Your task to perform on an android device: Add "acer predator" to the cart on amazon Image 0: 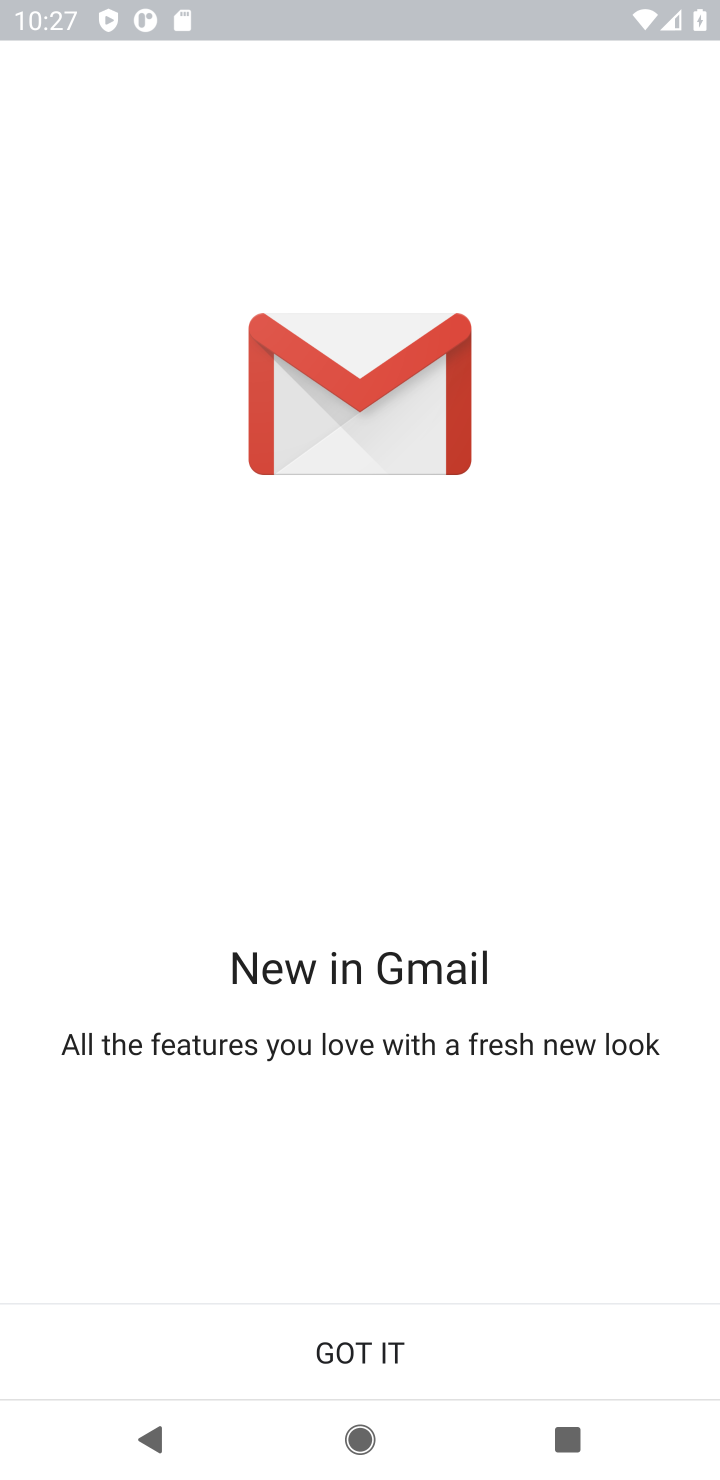
Step 0: press home button
Your task to perform on an android device: Add "acer predator" to the cart on amazon Image 1: 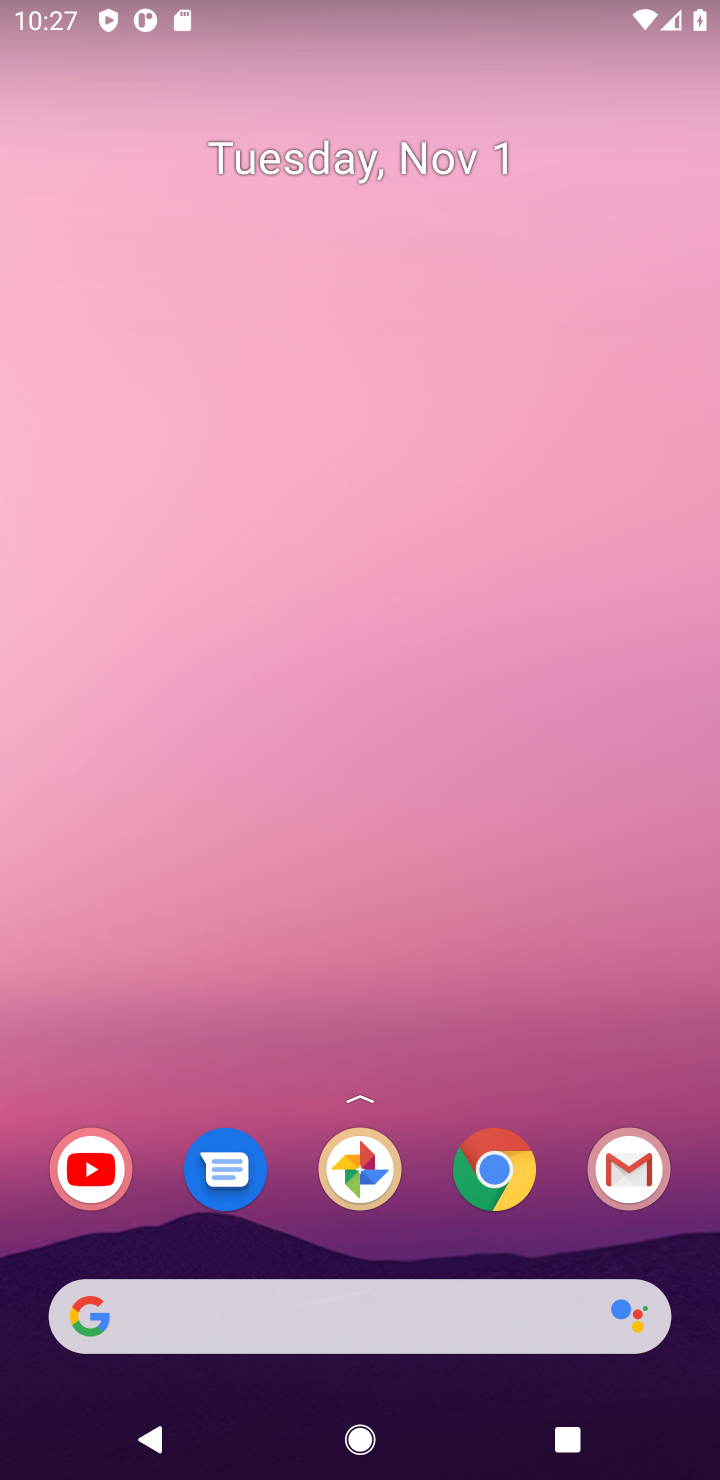
Step 1: click (480, 1164)
Your task to perform on an android device: Add "acer predator" to the cart on amazon Image 2: 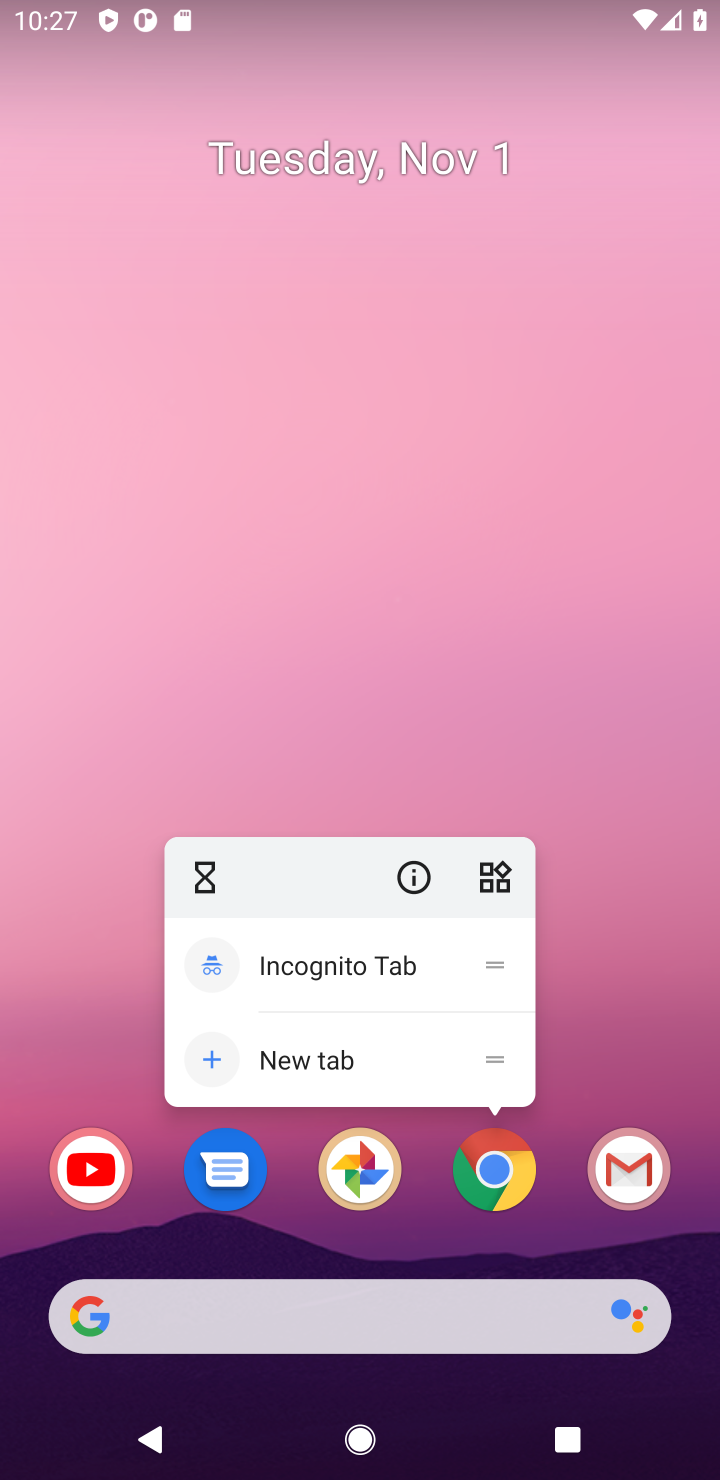
Step 2: click (477, 1166)
Your task to perform on an android device: Add "acer predator" to the cart on amazon Image 3: 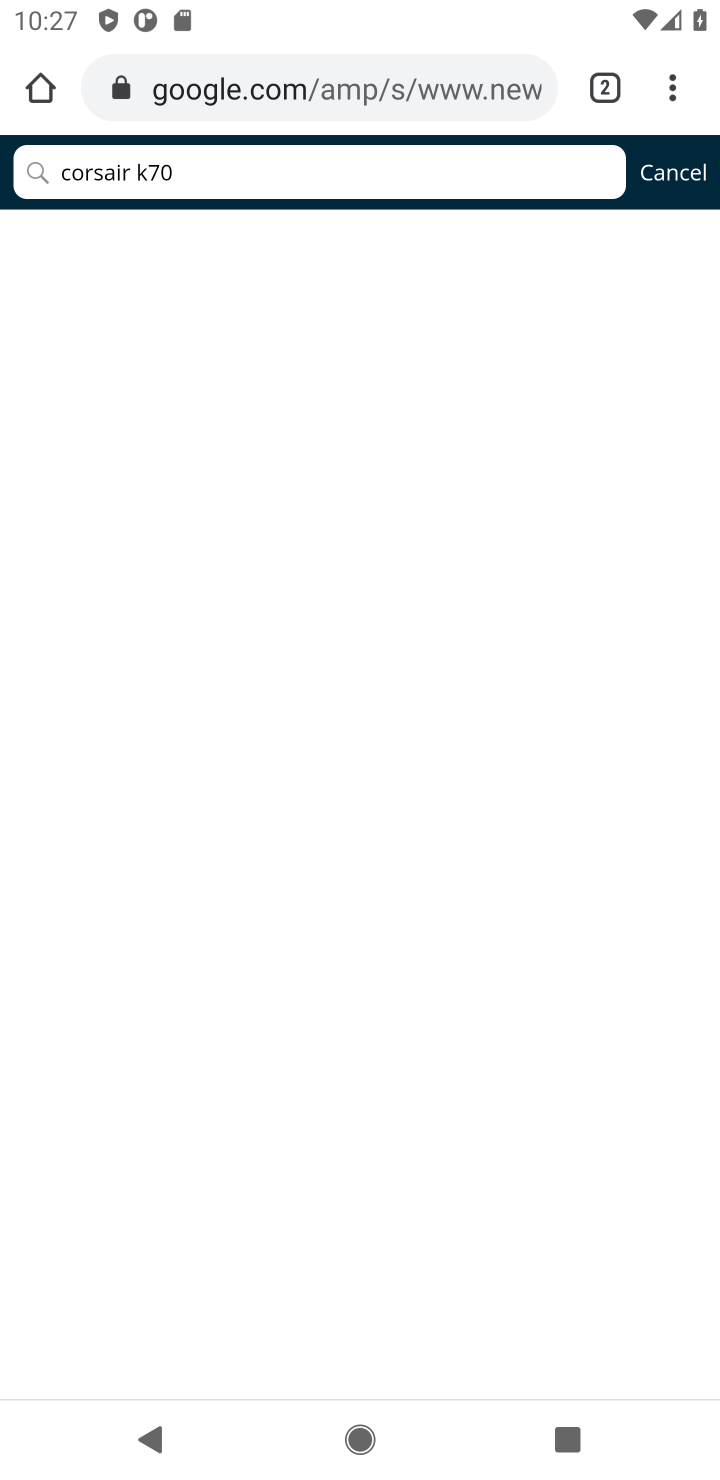
Step 3: click (461, 78)
Your task to perform on an android device: Add "acer predator" to the cart on amazon Image 4: 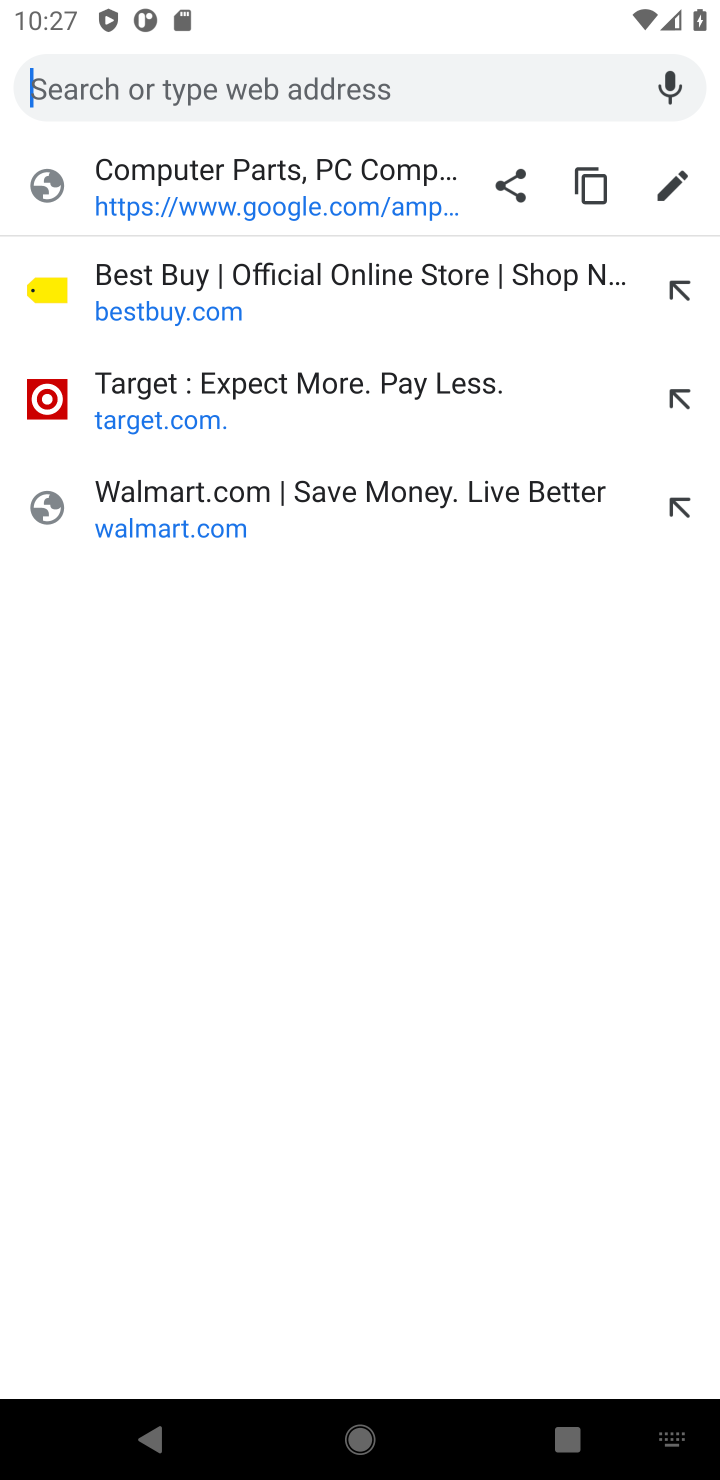
Step 4: press enter
Your task to perform on an android device: Add "acer predator" to the cart on amazon Image 5: 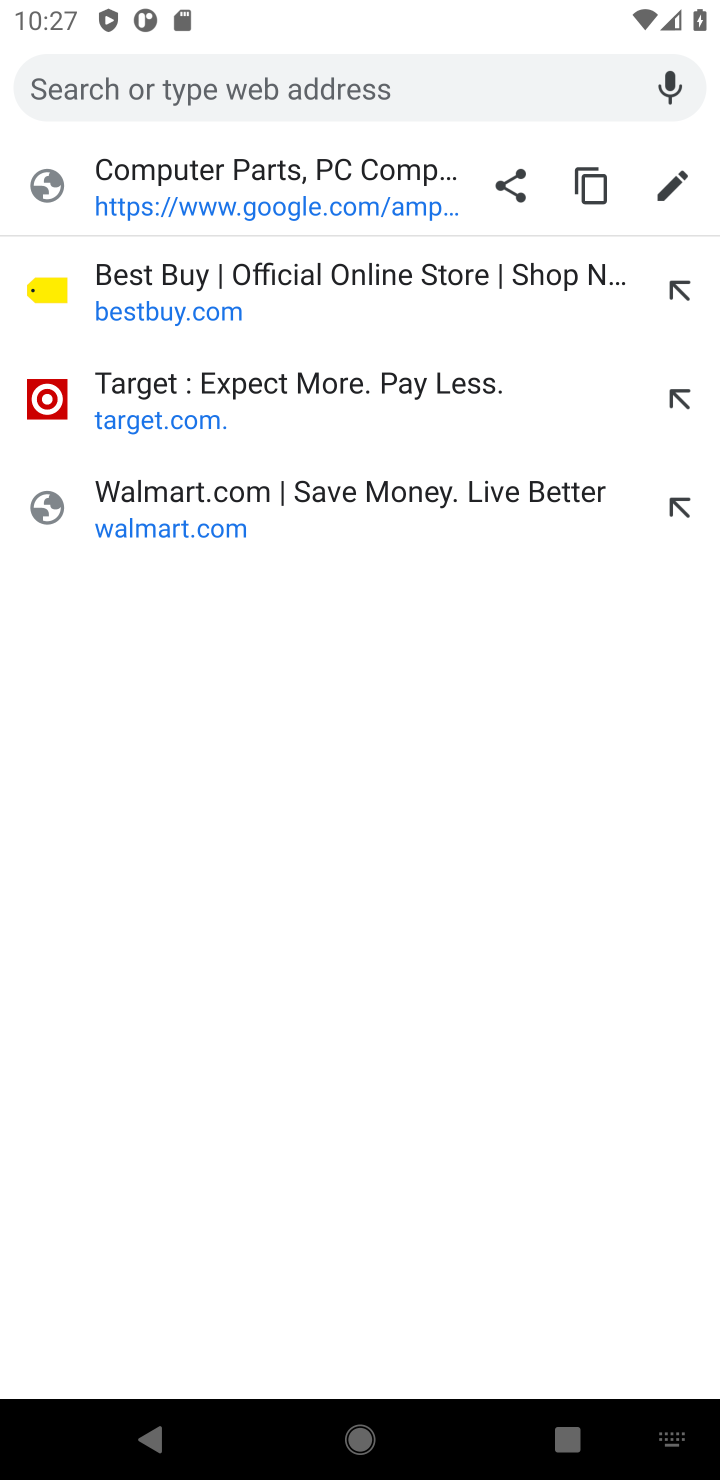
Step 5: type "amazon"
Your task to perform on an android device: Add "acer predator" to the cart on amazon Image 6: 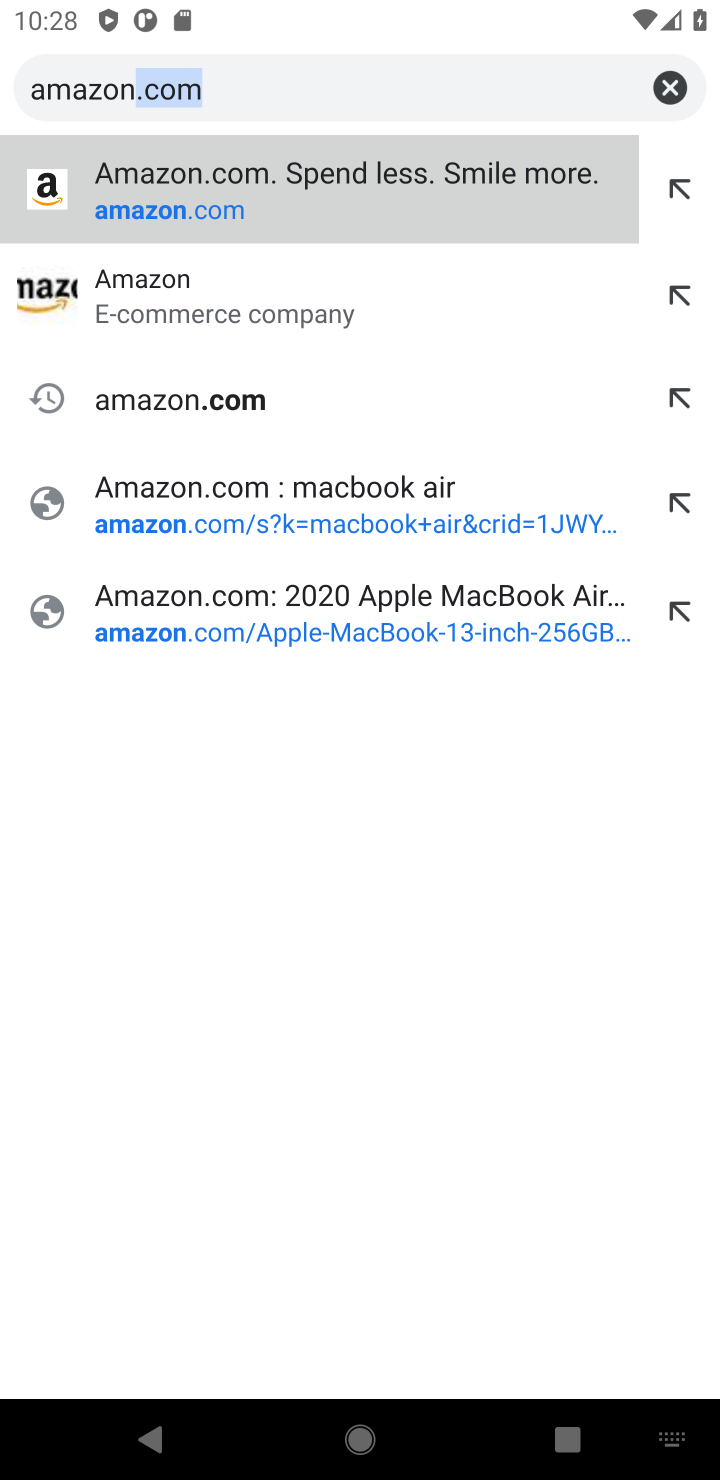
Step 6: click (387, 85)
Your task to perform on an android device: Add "acer predator" to the cart on amazon Image 7: 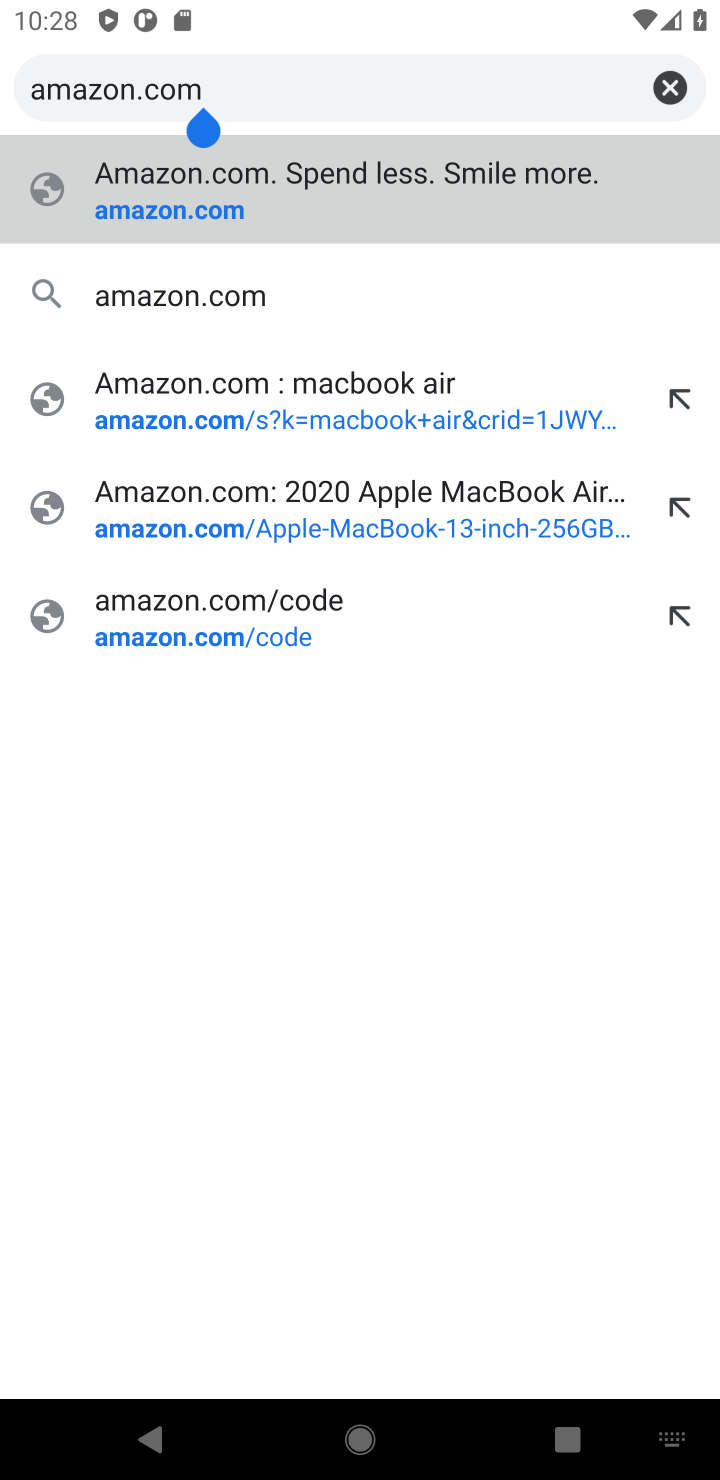
Step 7: click (235, 298)
Your task to perform on an android device: Add "acer predator" to the cart on amazon Image 8: 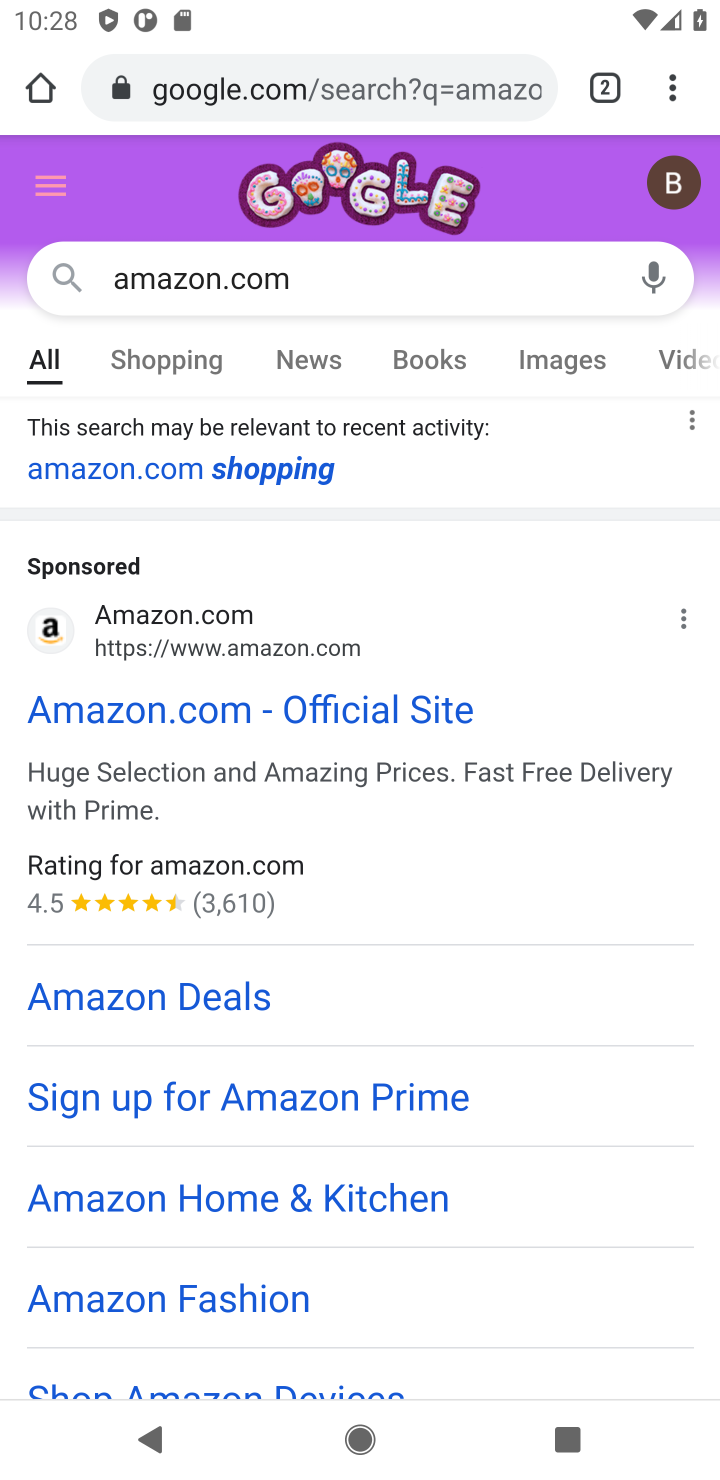
Step 8: drag from (370, 895) to (441, 499)
Your task to perform on an android device: Add "acer predator" to the cart on amazon Image 9: 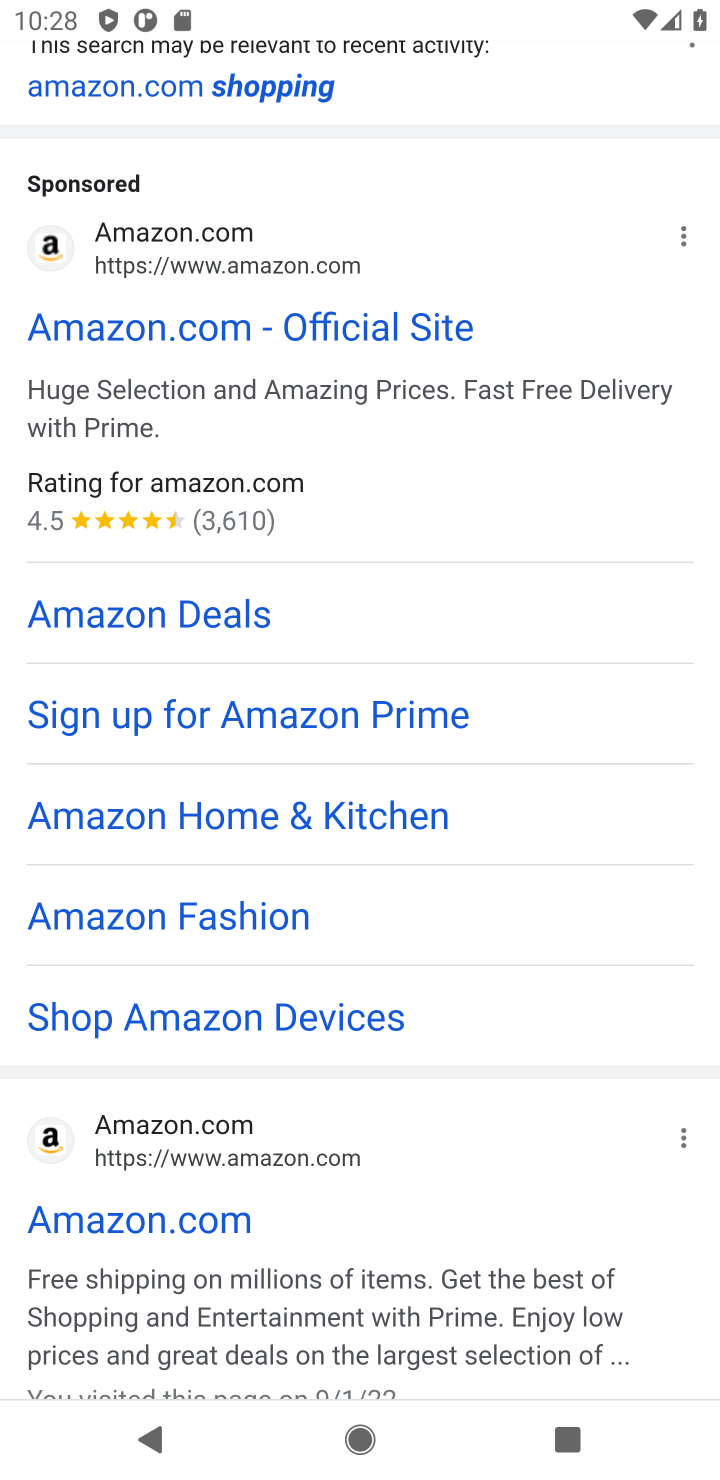
Step 9: click (266, 1119)
Your task to perform on an android device: Add "acer predator" to the cart on amazon Image 10: 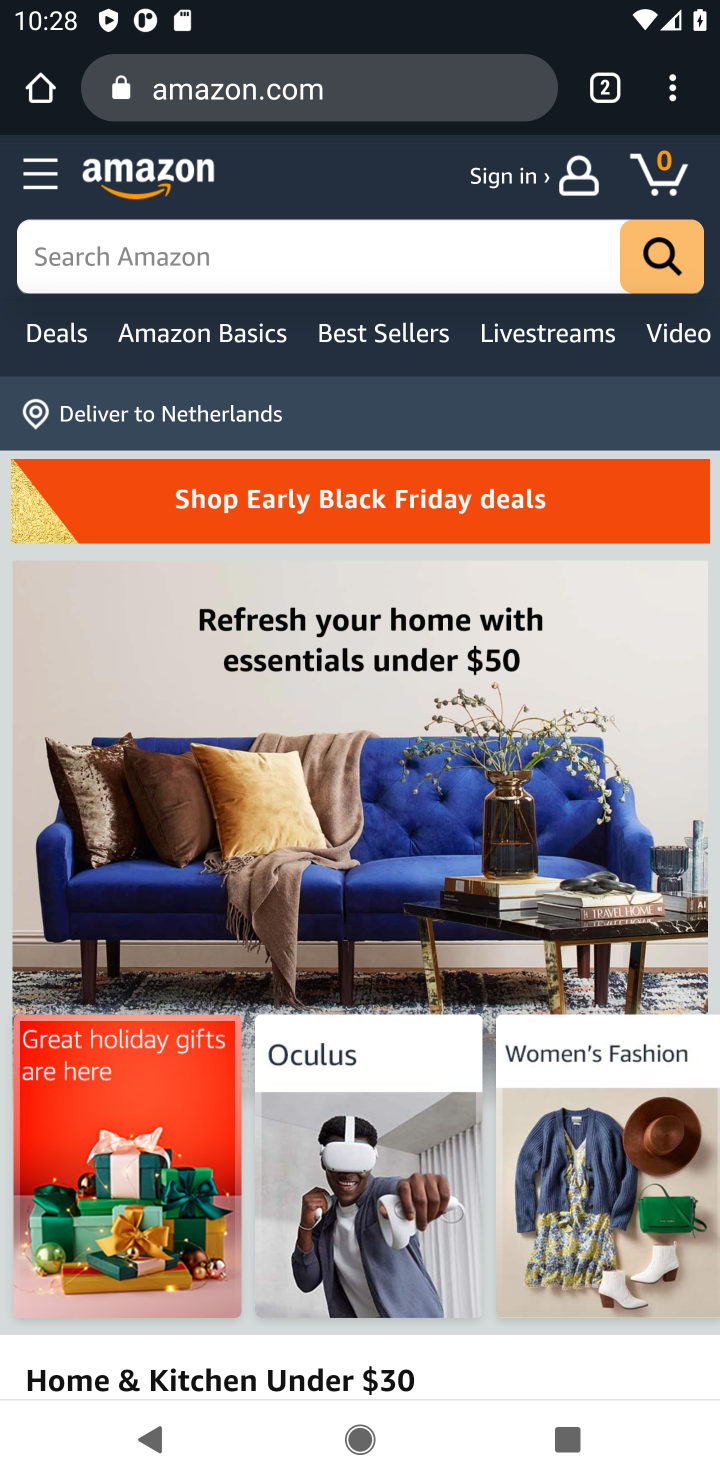
Step 10: click (349, 253)
Your task to perform on an android device: Add "acer predator" to the cart on amazon Image 11: 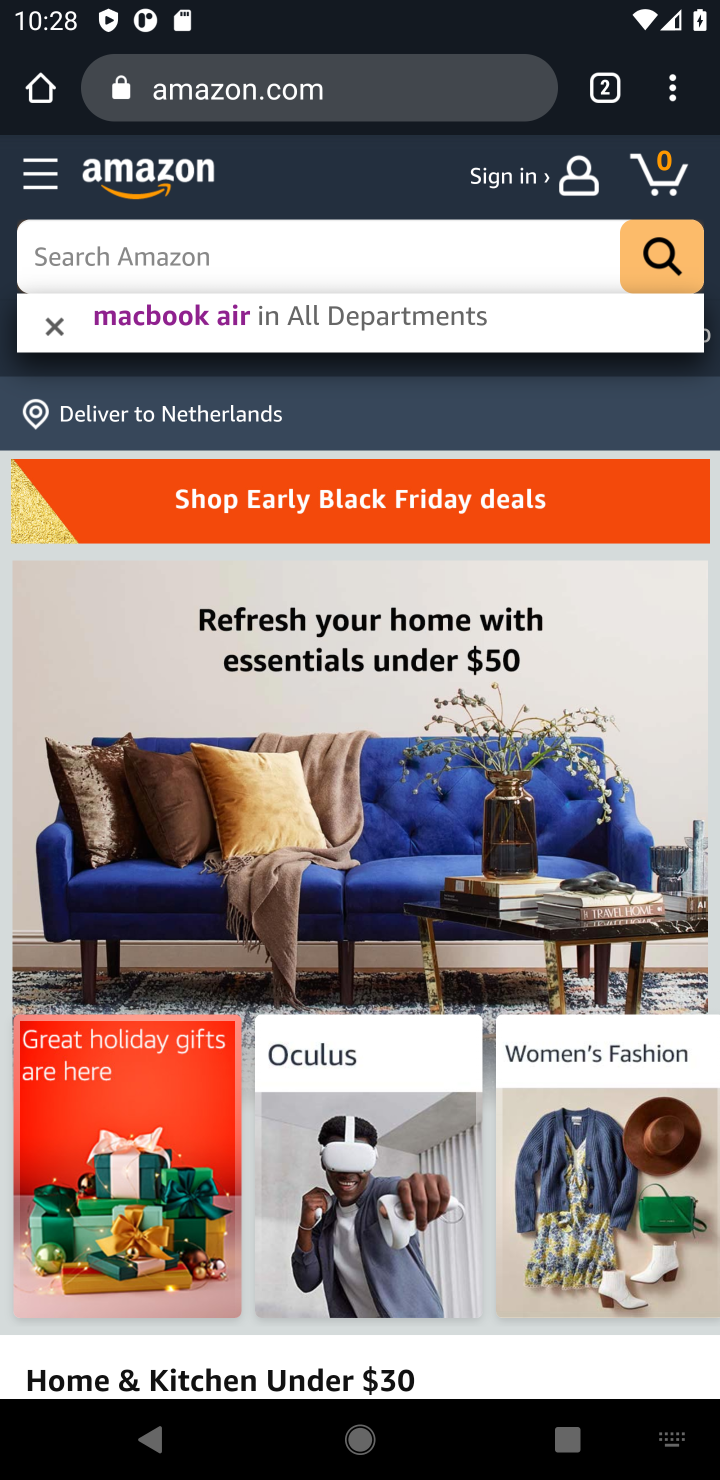
Step 11: type "acer predator"
Your task to perform on an android device: Add "acer predator" to the cart on amazon Image 12: 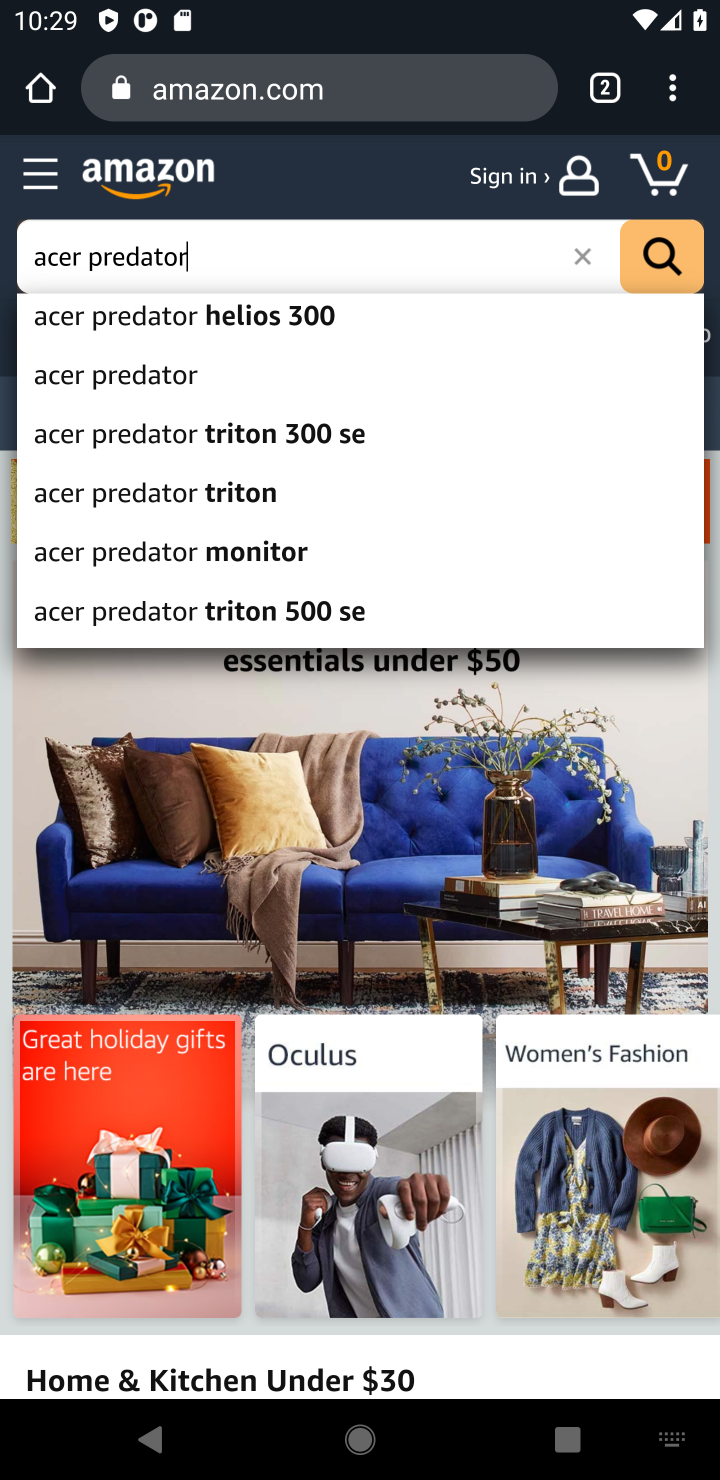
Step 12: click (114, 376)
Your task to perform on an android device: Add "acer predator" to the cart on amazon Image 13: 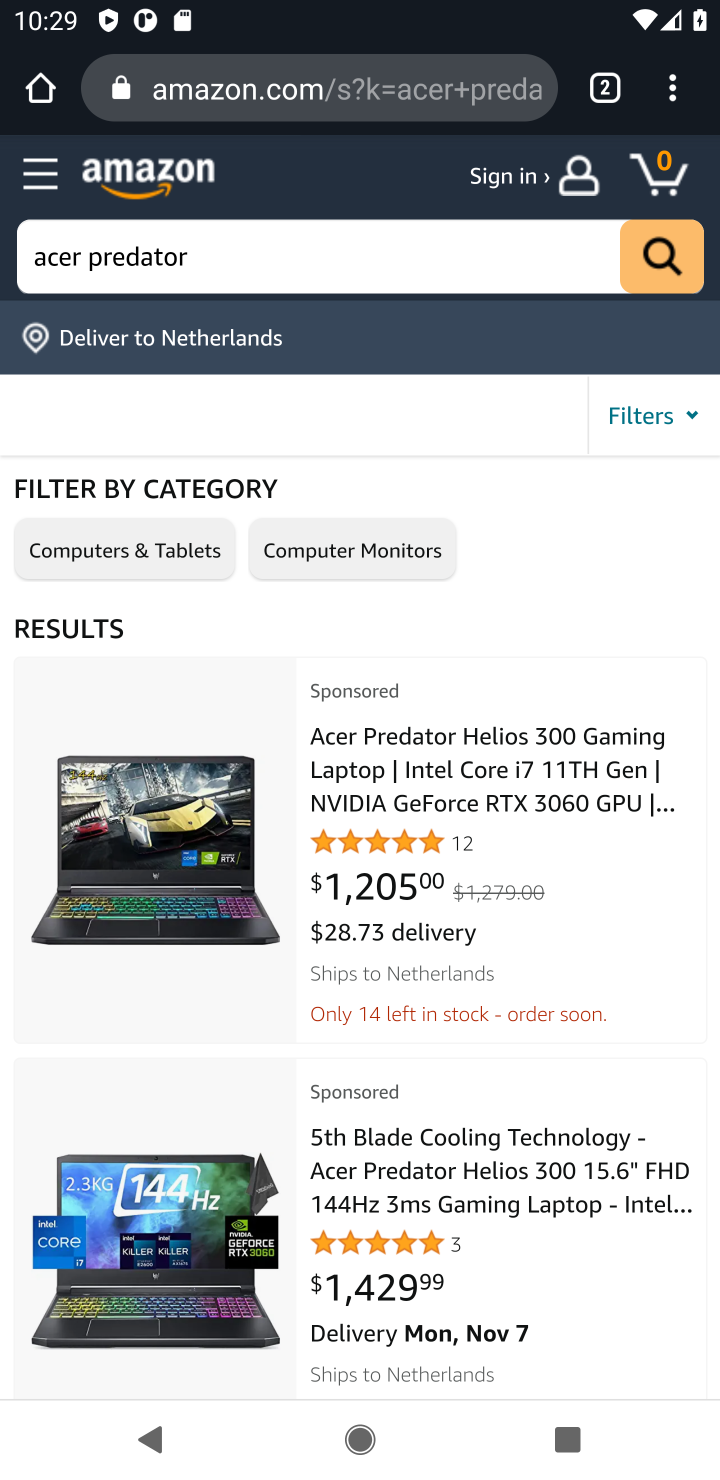
Step 13: click (133, 865)
Your task to perform on an android device: Add "acer predator" to the cart on amazon Image 14: 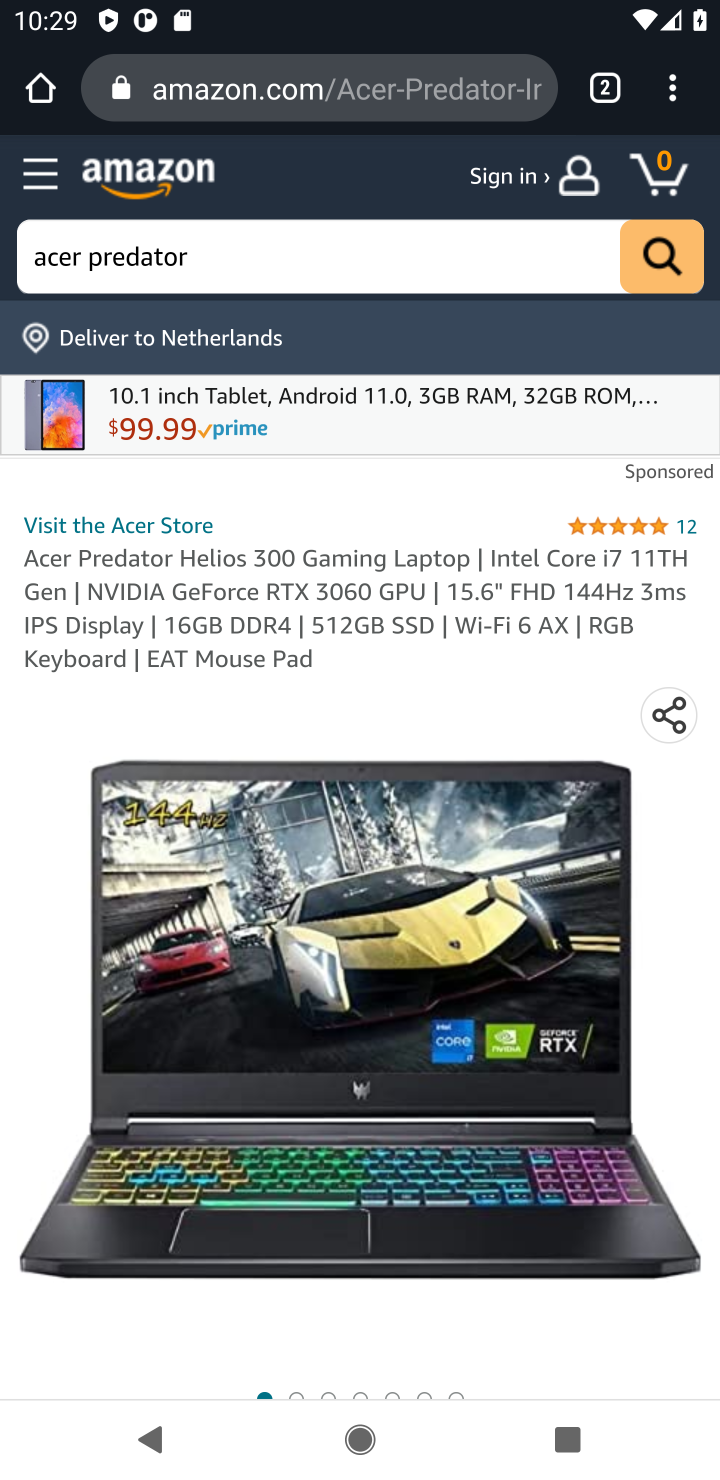
Step 14: drag from (303, 664) to (270, 359)
Your task to perform on an android device: Add "acer predator" to the cart on amazon Image 15: 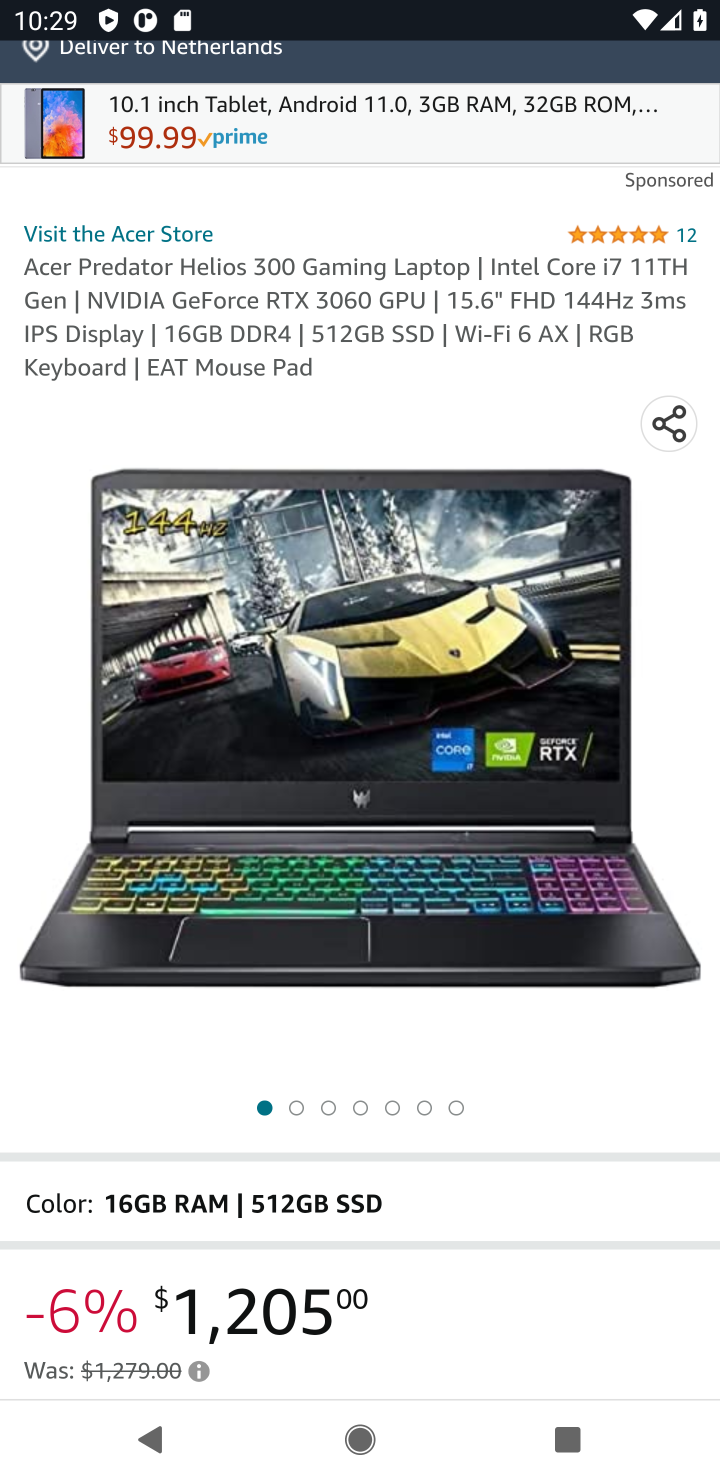
Step 15: drag from (397, 1131) to (395, 716)
Your task to perform on an android device: Add "acer predator" to the cart on amazon Image 16: 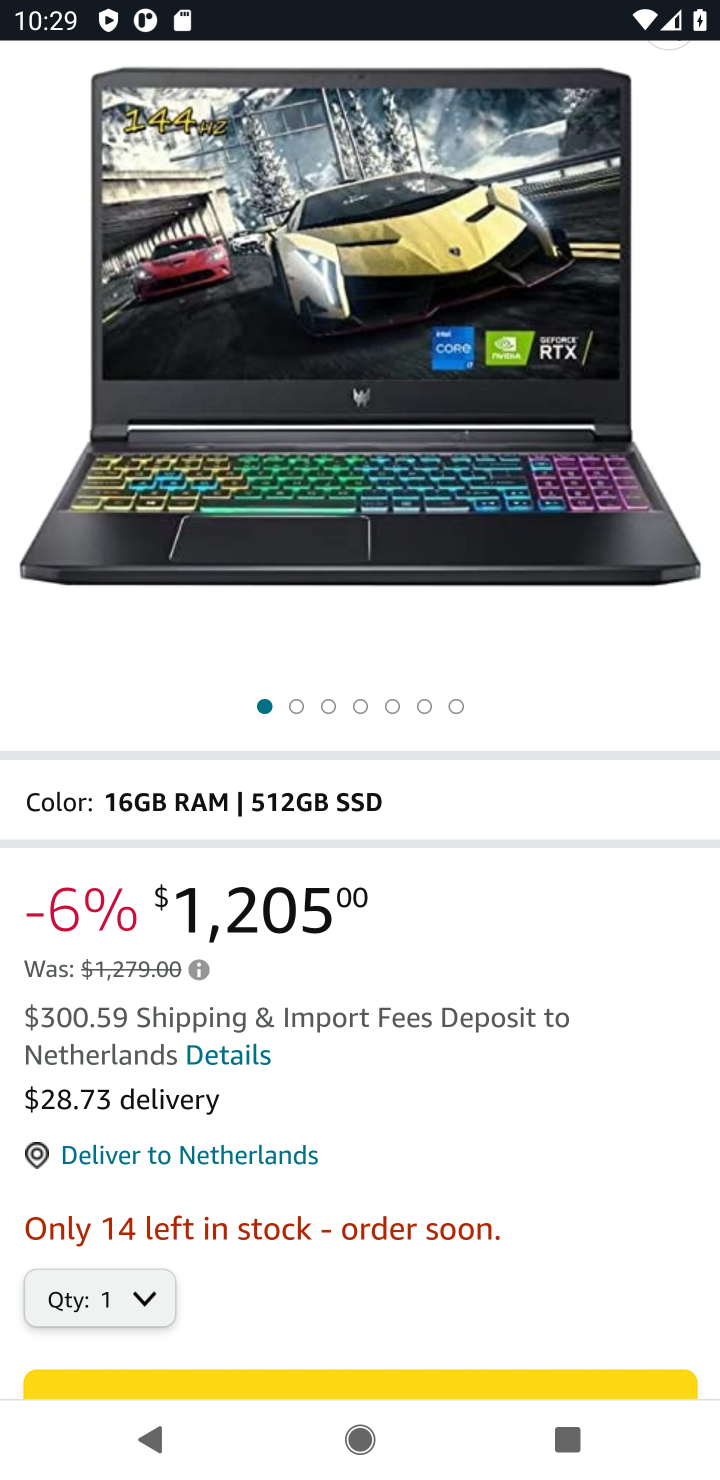
Step 16: drag from (382, 1263) to (346, 675)
Your task to perform on an android device: Add "acer predator" to the cart on amazon Image 17: 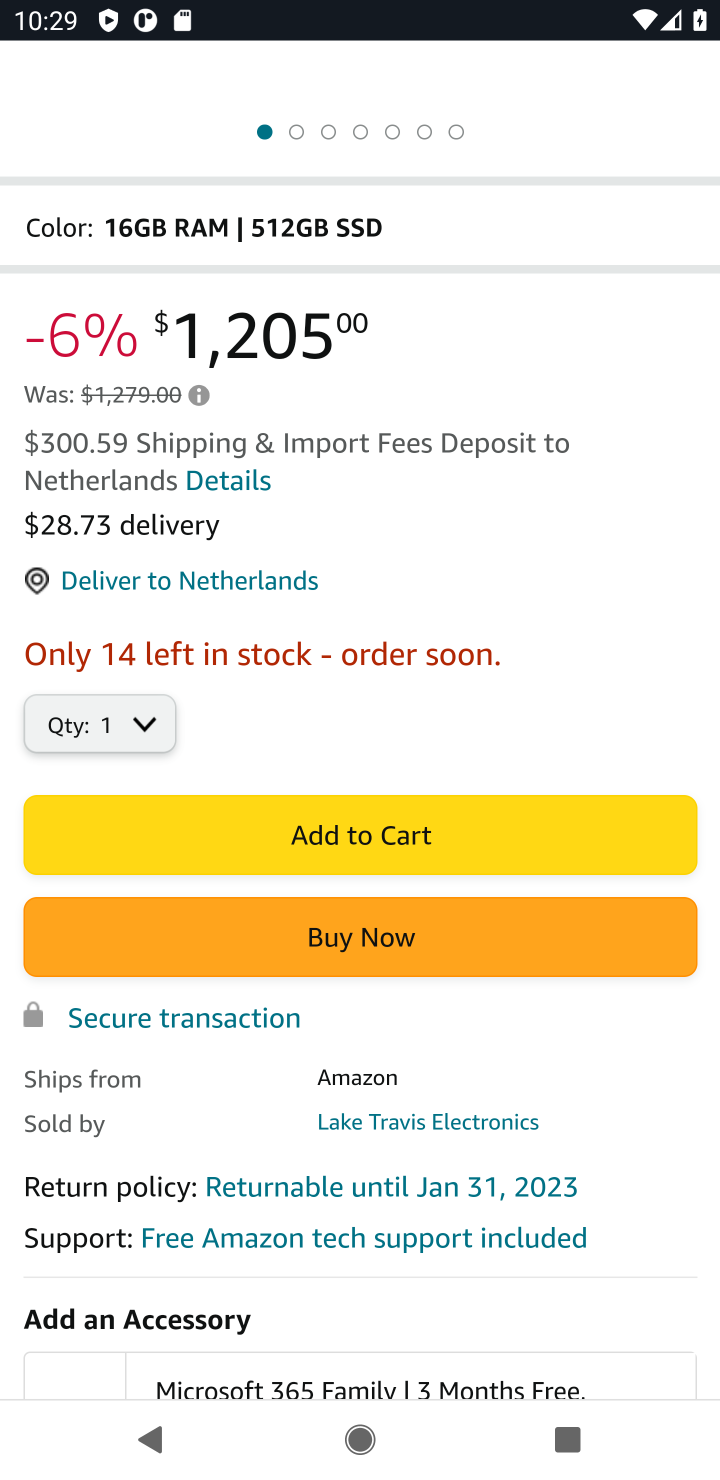
Step 17: click (388, 815)
Your task to perform on an android device: Add "acer predator" to the cart on amazon Image 18: 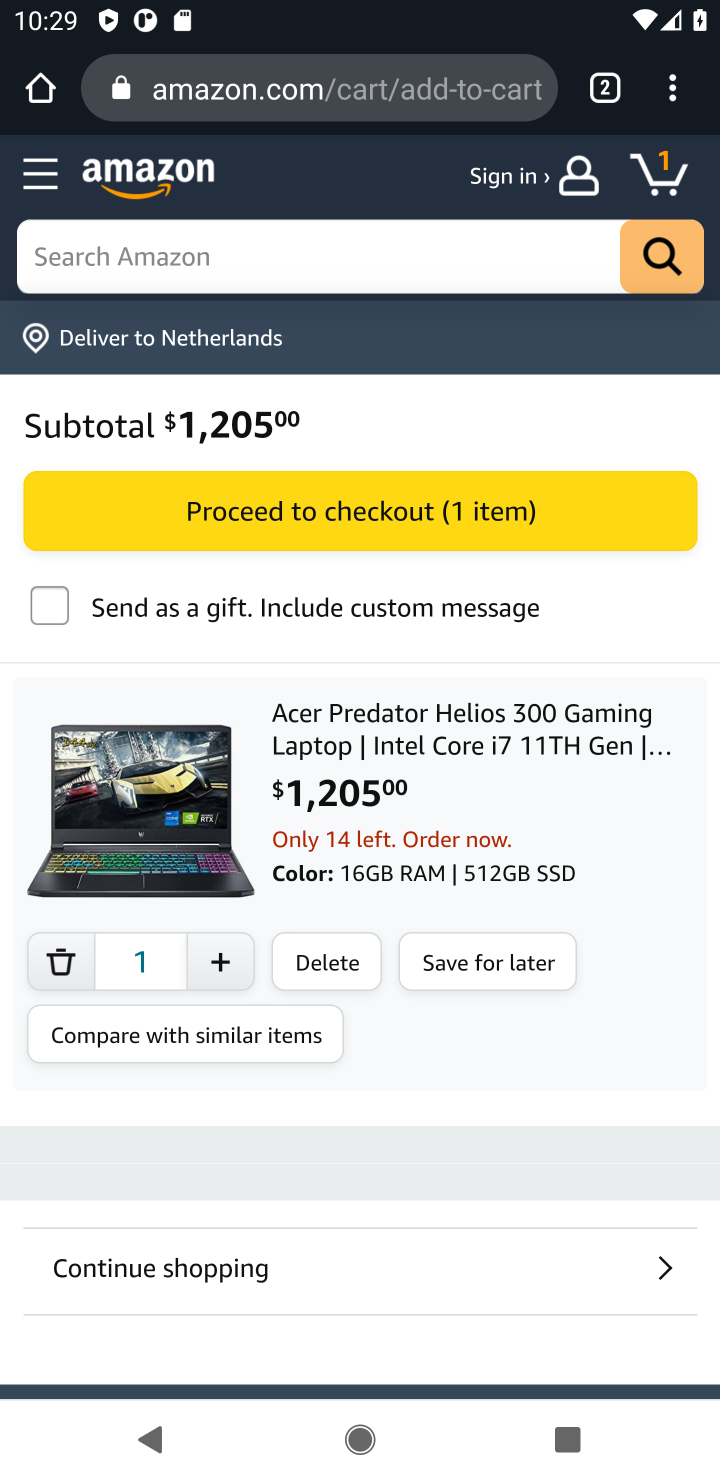
Step 18: task complete